Your task to perform on an android device: What's on my calendar tomorrow? Image 0: 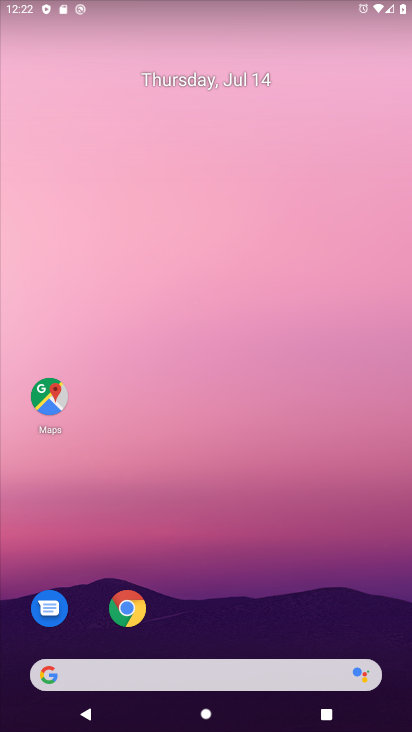
Step 0: drag from (196, 668) to (280, 213)
Your task to perform on an android device: What's on my calendar tomorrow? Image 1: 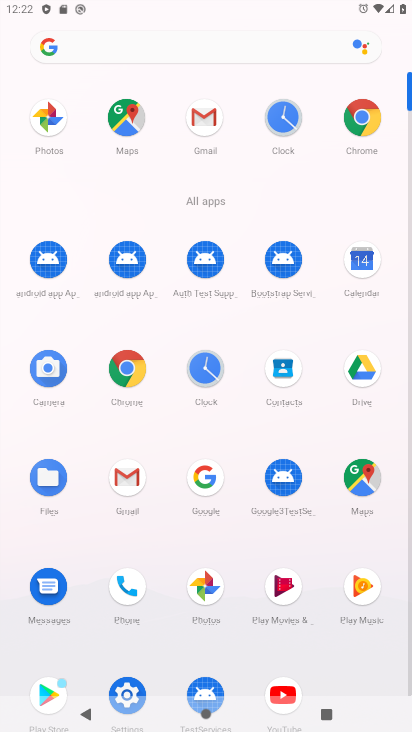
Step 1: click (362, 261)
Your task to perform on an android device: What's on my calendar tomorrow? Image 2: 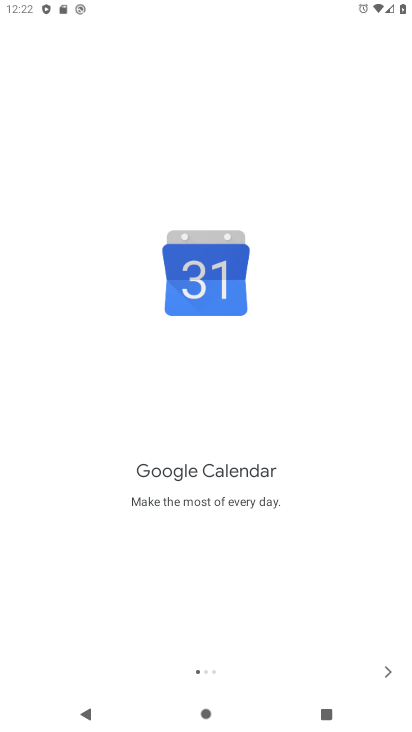
Step 2: click (389, 671)
Your task to perform on an android device: What's on my calendar tomorrow? Image 3: 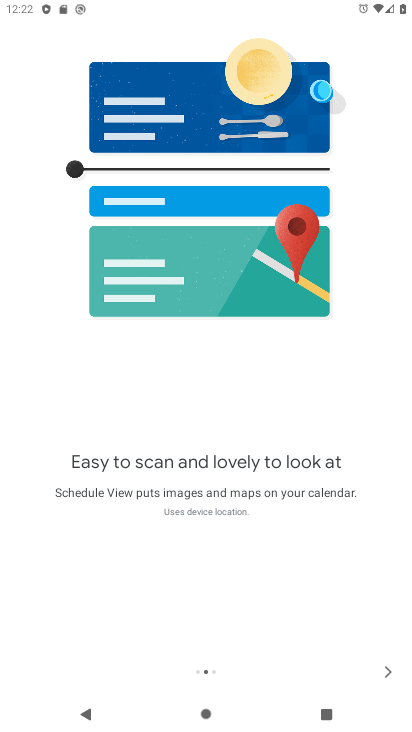
Step 3: click (389, 671)
Your task to perform on an android device: What's on my calendar tomorrow? Image 4: 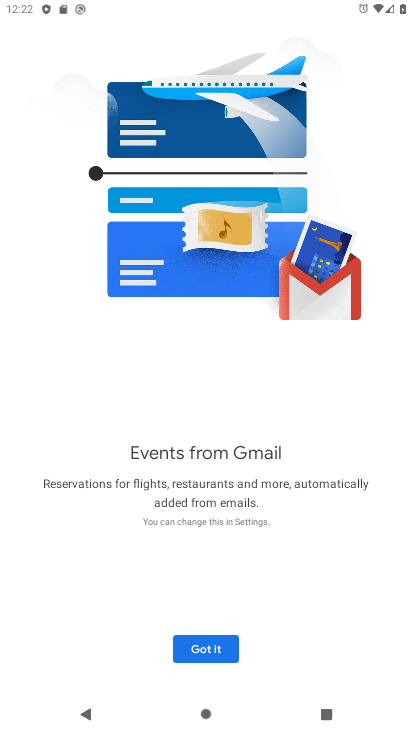
Step 4: click (223, 652)
Your task to perform on an android device: What's on my calendar tomorrow? Image 5: 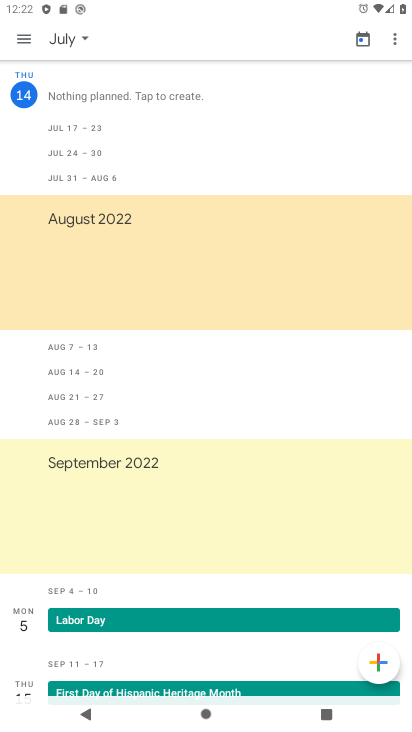
Step 5: click (85, 40)
Your task to perform on an android device: What's on my calendar tomorrow? Image 6: 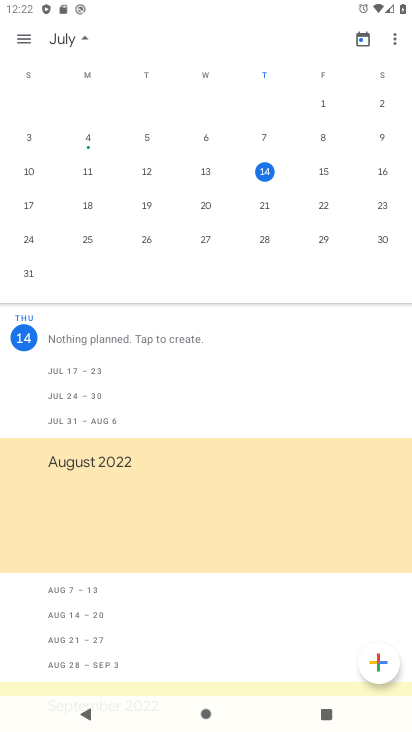
Step 6: click (320, 172)
Your task to perform on an android device: What's on my calendar tomorrow? Image 7: 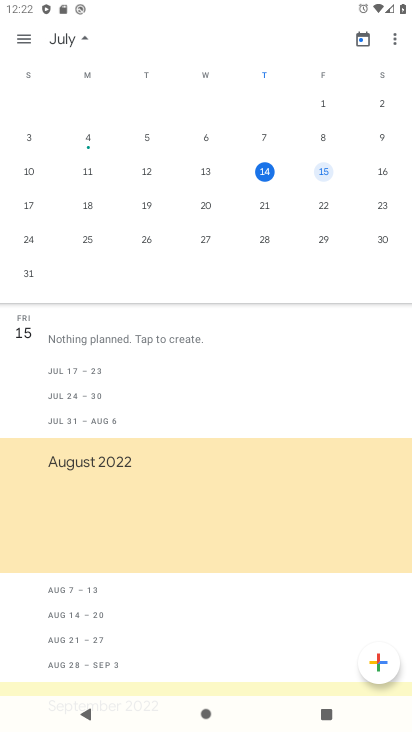
Step 7: click (15, 40)
Your task to perform on an android device: What's on my calendar tomorrow? Image 8: 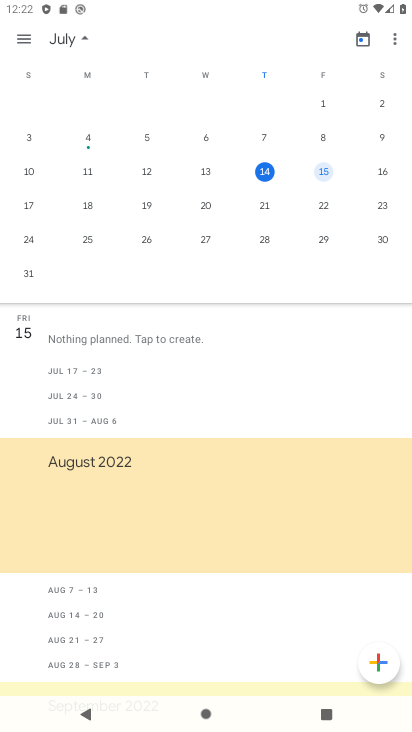
Step 8: click (31, 38)
Your task to perform on an android device: What's on my calendar tomorrow? Image 9: 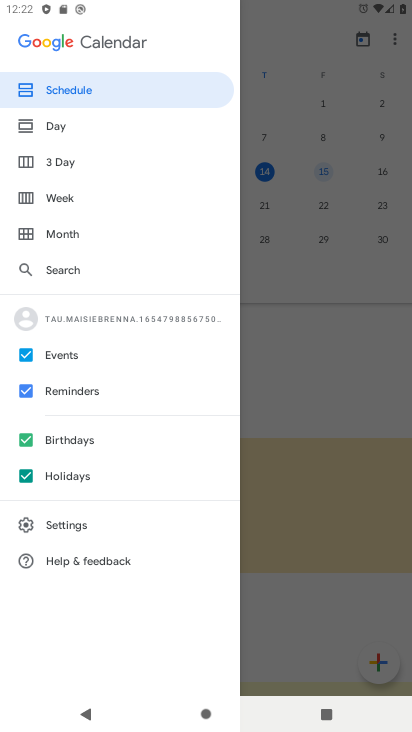
Step 9: click (81, 96)
Your task to perform on an android device: What's on my calendar tomorrow? Image 10: 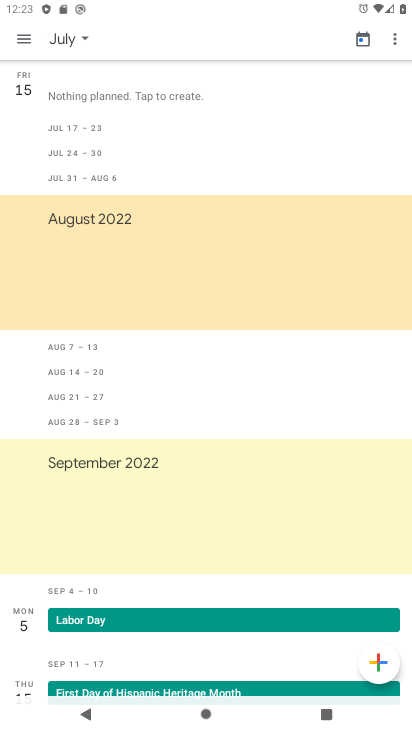
Step 10: task complete